Your task to perform on an android device: change the clock display to digital Image 0: 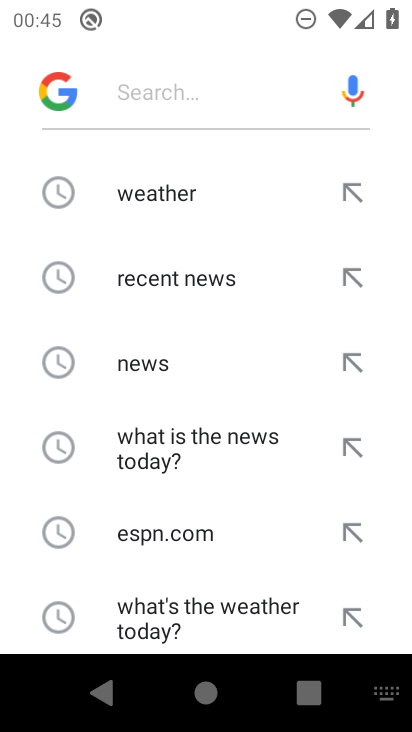
Step 0: drag from (278, 551) to (272, 109)
Your task to perform on an android device: change the clock display to digital Image 1: 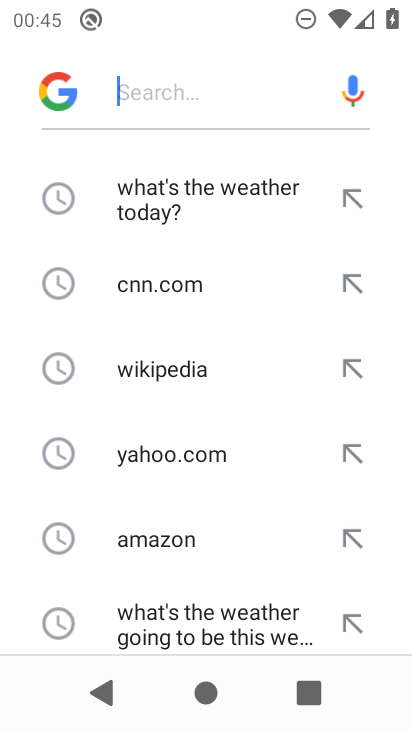
Step 1: drag from (184, 588) to (277, 221)
Your task to perform on an android device: change the clock display to digital Image 2: 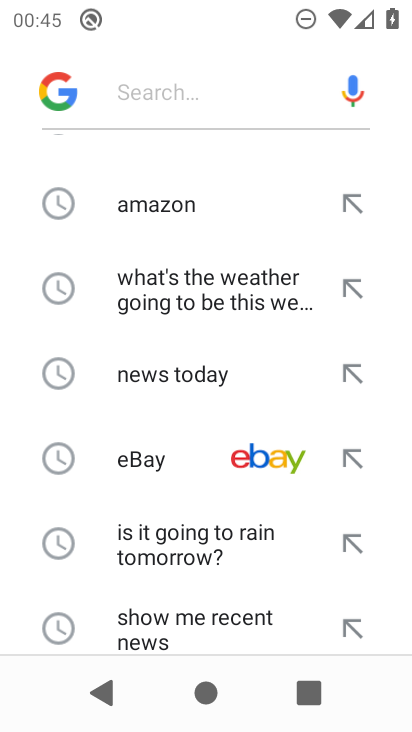
Step 2: press home button
Your task to perform on an android device: change the clock display to digital Image 3: 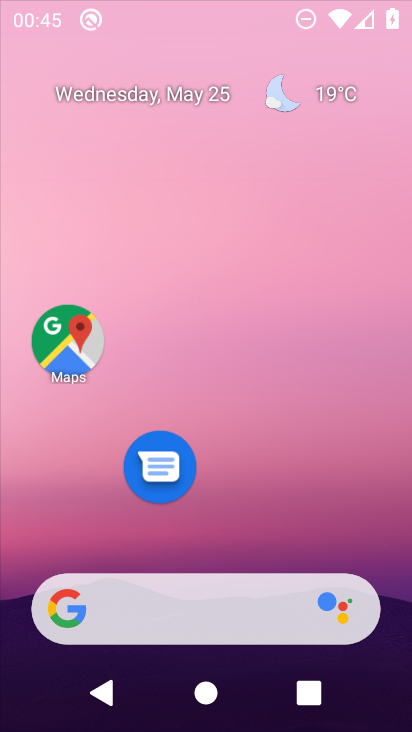
Step 3: drag from (201, 616) to (260, 207)
Your task to perform on an android device: change the clock display to digital Image 4: 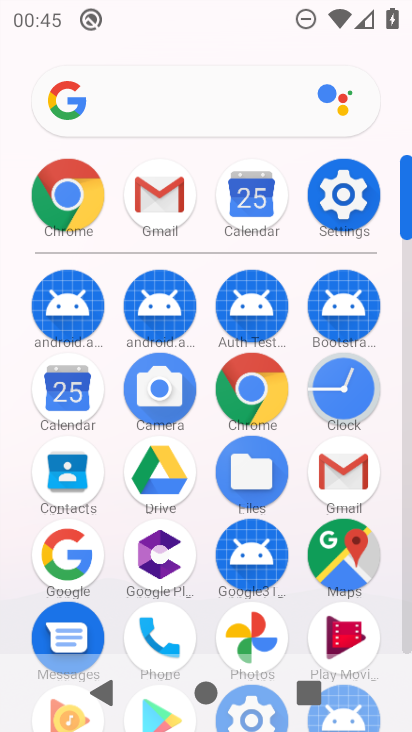
Step 4: click (347, 380)
Your task to perform on an android device: change the clock display to digital Image 5: 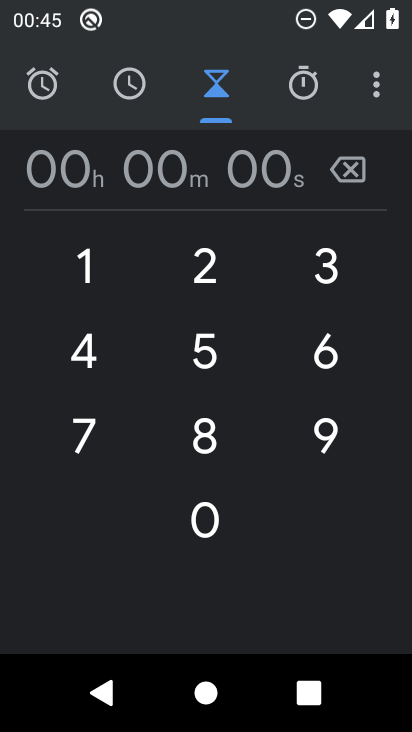
Step 5: click (378, 88)
Your task to perform on an android device: change the clock display to digital Image 6: 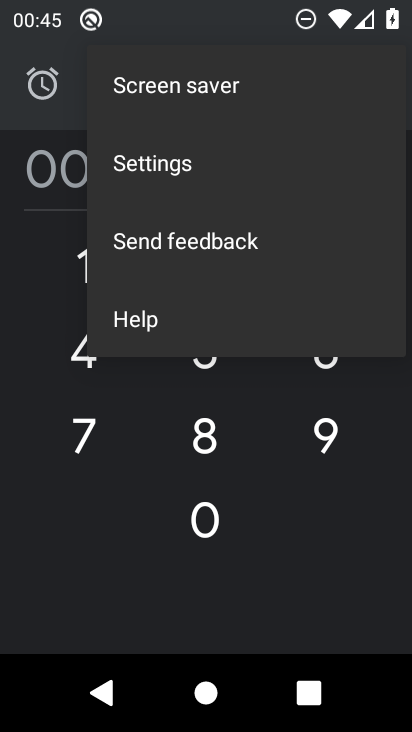
Step 6: click (198, 172)
Your task to perform on an android device: change the clock display to digital Image 7: 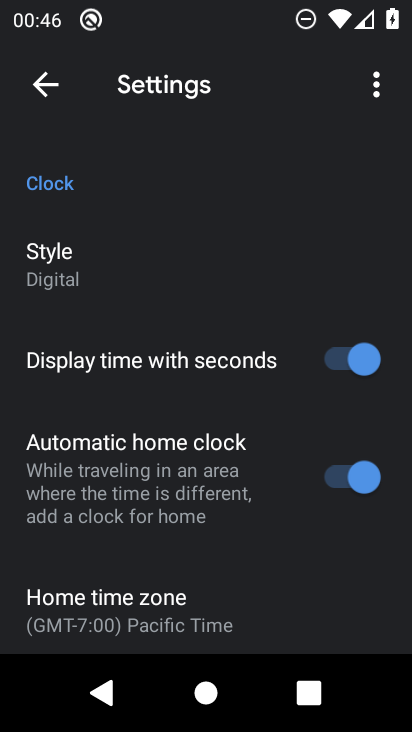
Step 7: click (174, 296)
Your task to perform on an android device: change the clock display to digital Image 8: 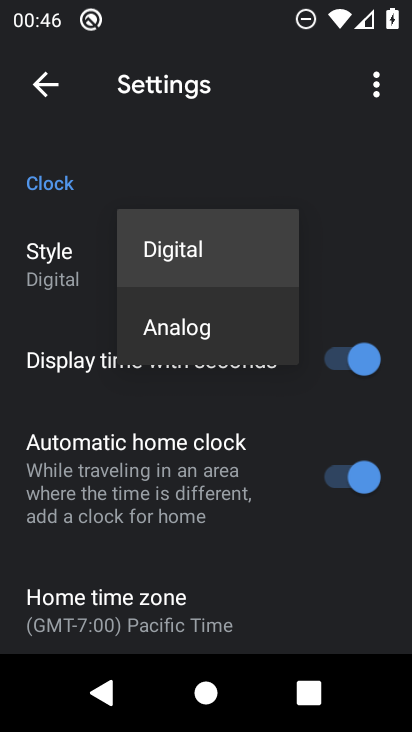
Step 8: task complete